Your task to perform on an android device: Add "usb-b" to the cart on walmart Image 0: 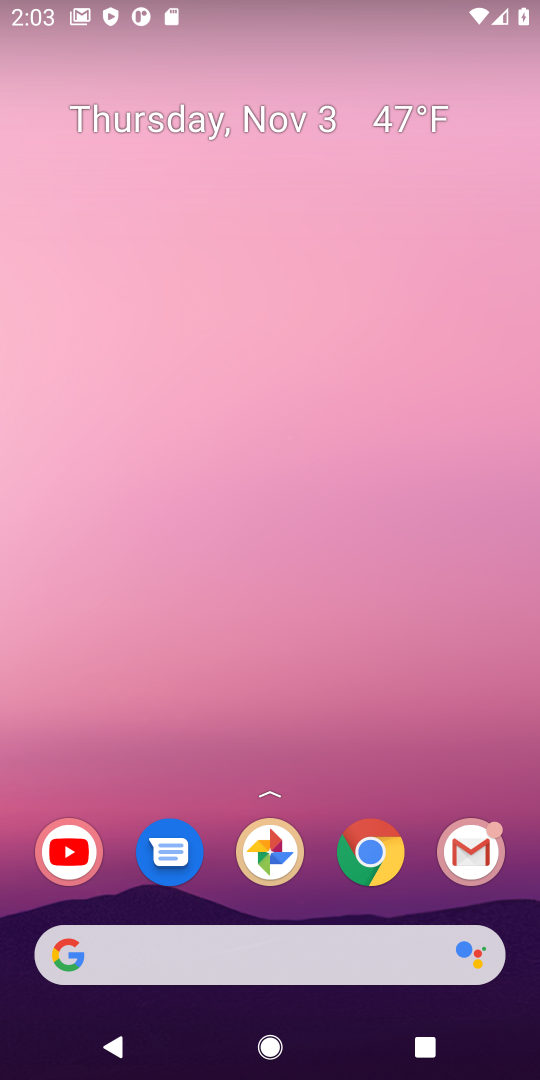
Step 0: click (368, 860)
Your task to perform on an android device: Add "usb-b" to the cart on walmart Image 1: 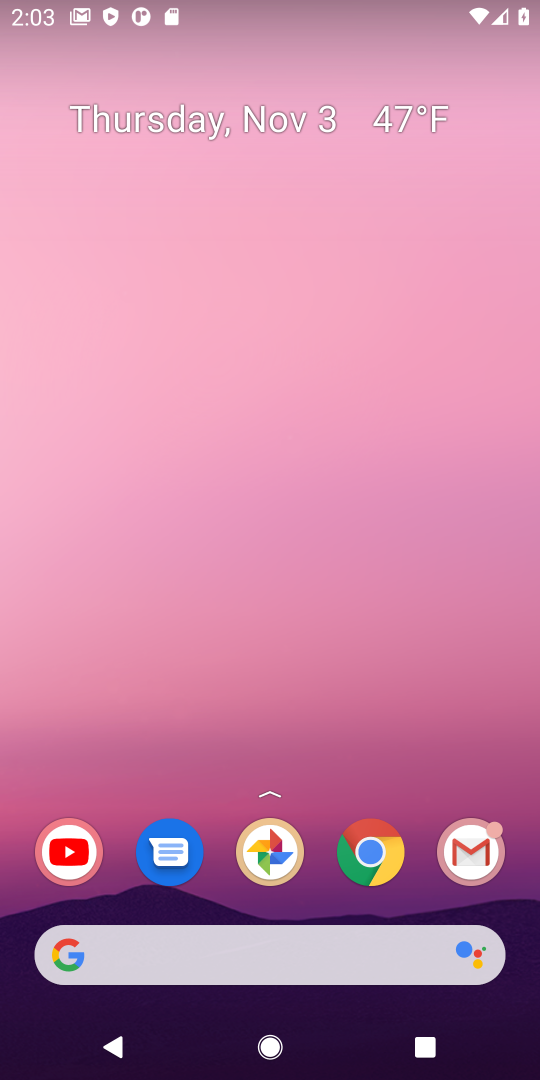
Step 1: click (368, 860)
Your task to perform on an android device: Add "usb-b" to the cart on walmart Image 2: 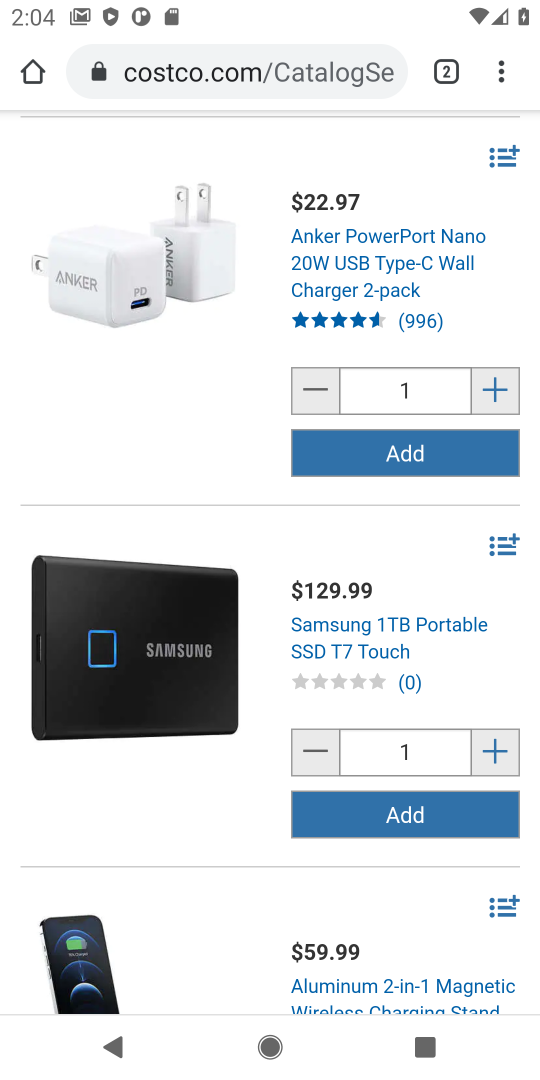
Step 2: click (217, 56)
Your task to perform on an android device: Add "usb-b" to the cart on walmart Image 3: 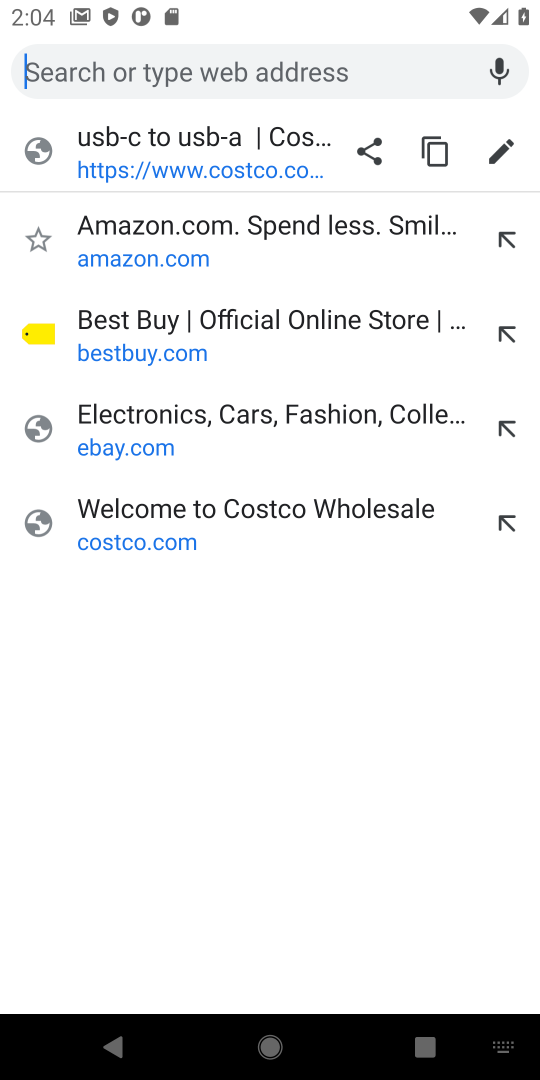
Step 3: type "walmart.com"
Your task to perform on an android device: Add "usb-b" to the cart on walmart Image 4: 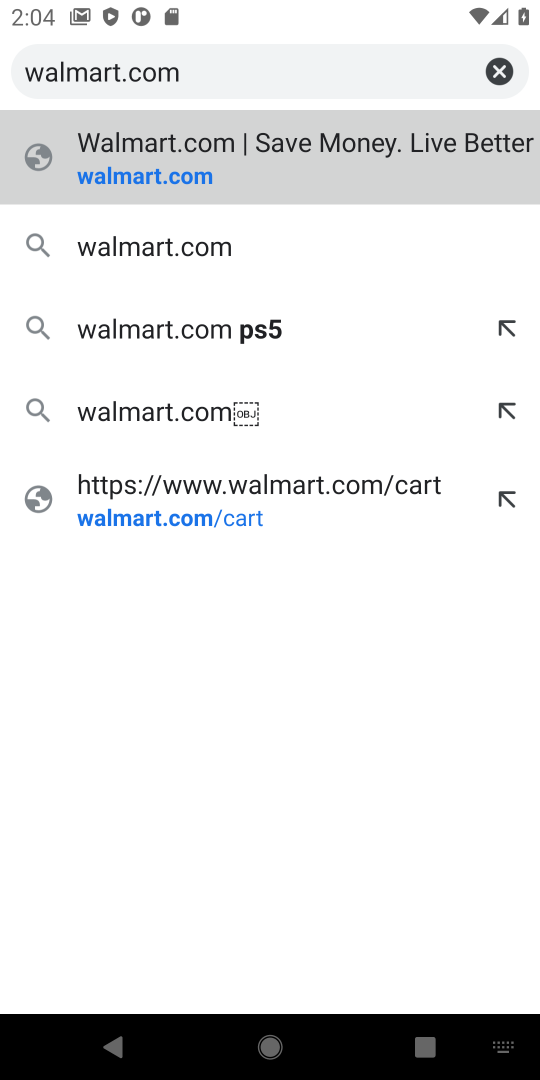
Step 4: click (130, 176)
Your task to perform on an android device: Add "usb-b" to the cart on walmart Image 5: 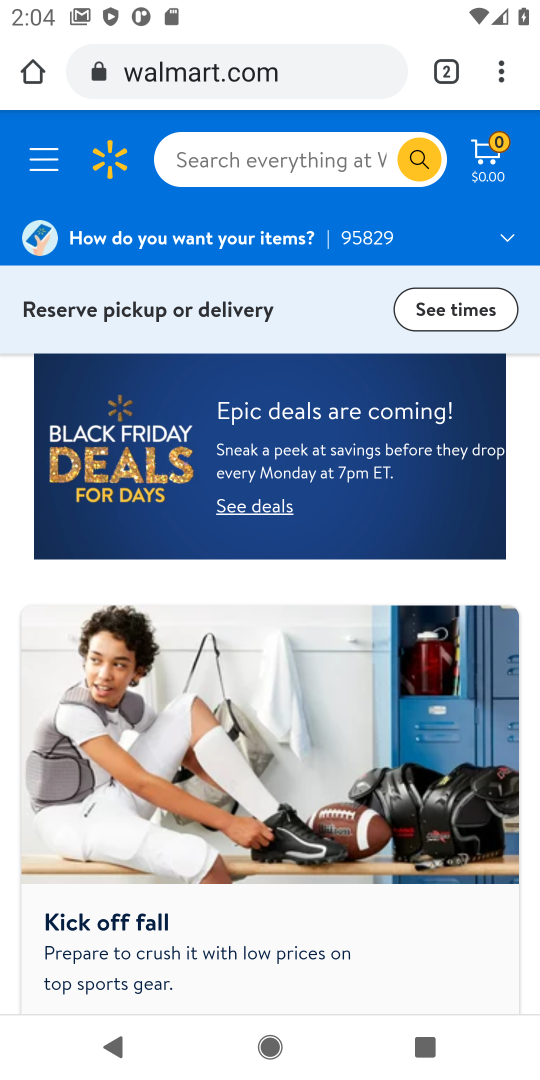
Step 5: click (256, 150)
Your task to perform on an android device: Add "usb-b" to the cart on walmart Image 6: 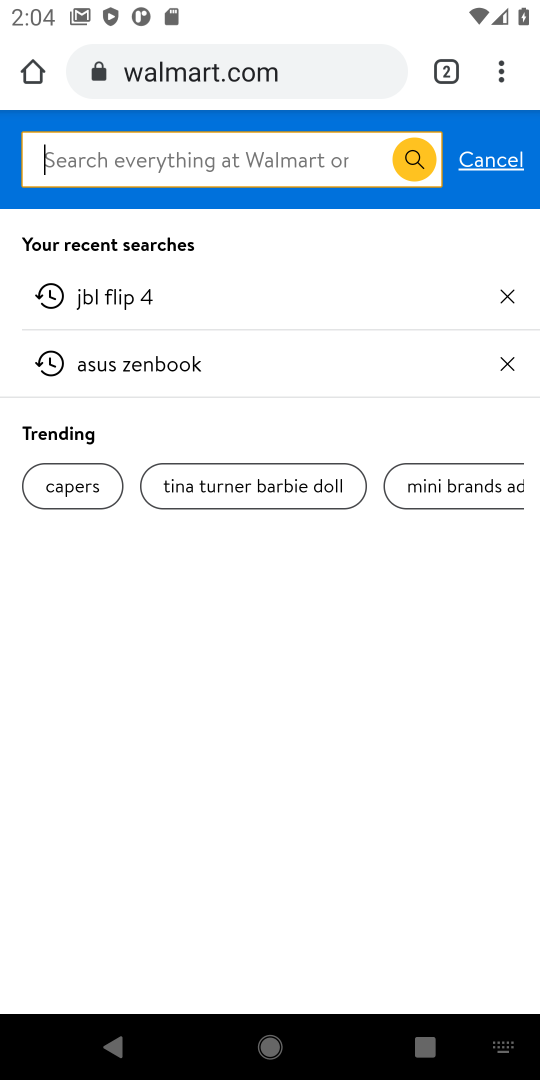
Step 6: type "usb-b"
Your task to perform on an android device: Add "usb-b" to the cart on walmart Image 7: 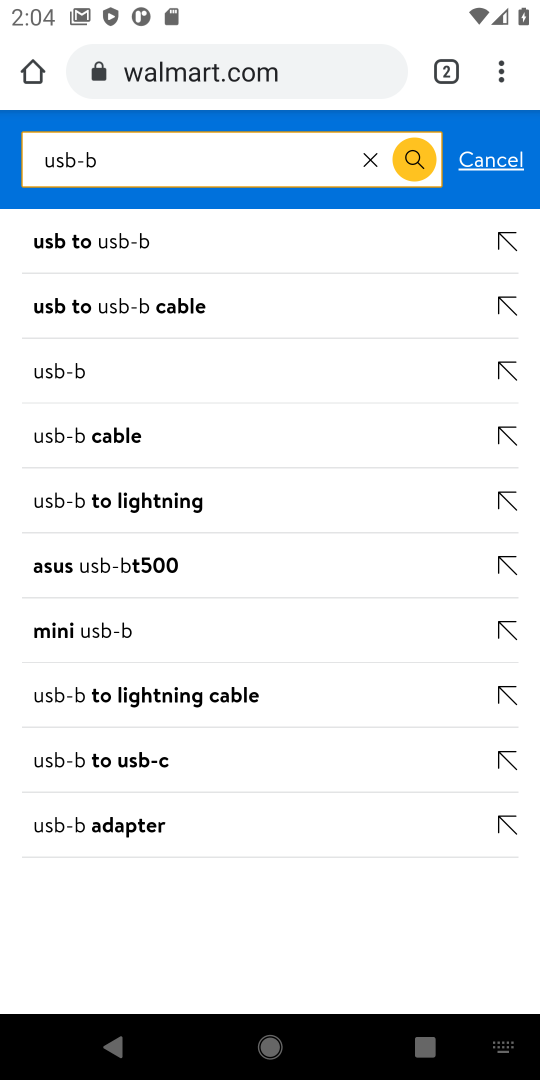
Step 7: click (68, 374)
Your task to perform on an android device: Add "usb-b" to the cart on walmart Image 8: 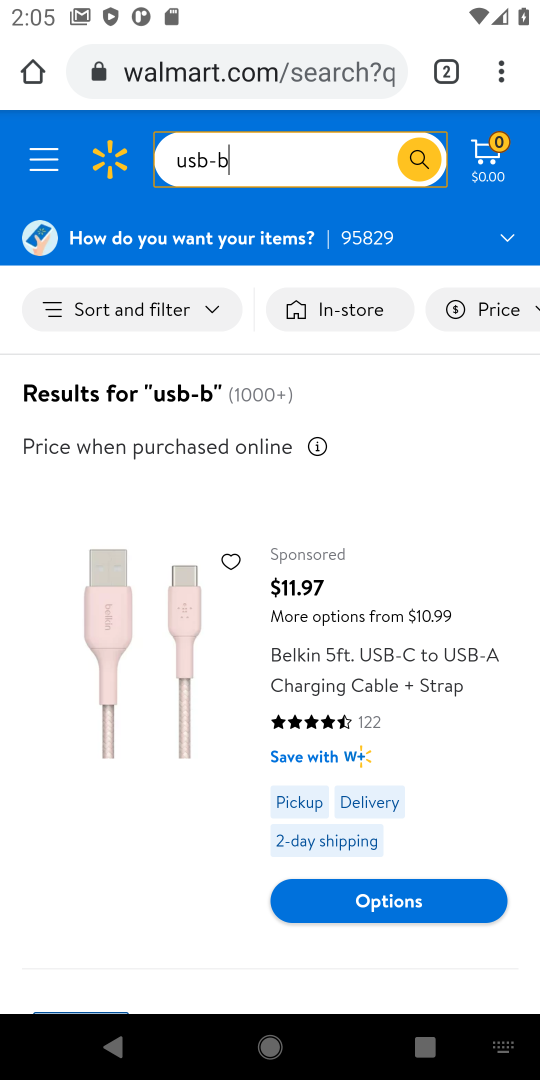
Step 8: drag from (176, 671) to (207, 206)
Your task to perform on an android device: Add "usb-b" to the cart on walmart Image 9: 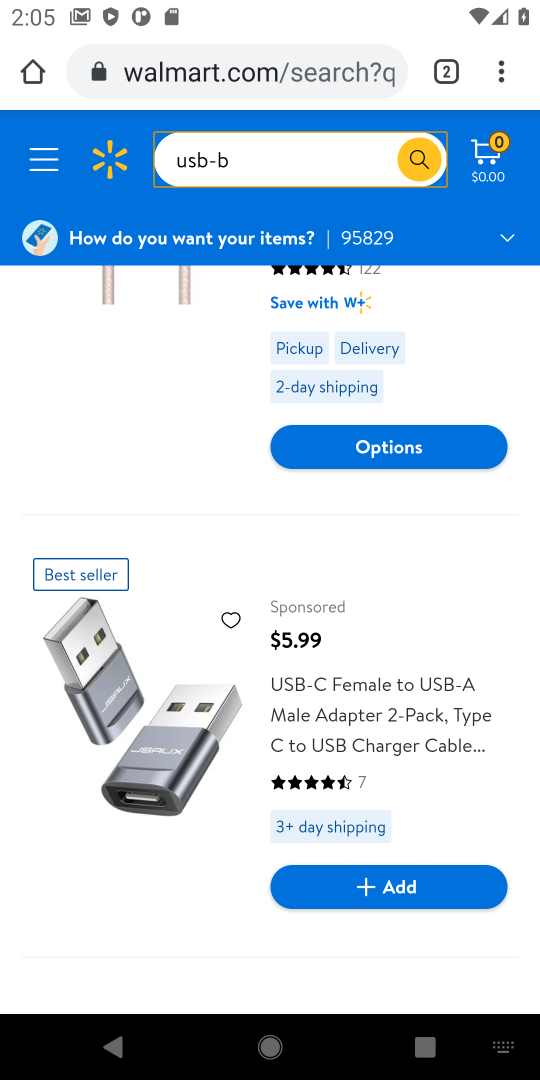
Step 9: drag from (158, 697) to (141, 307)
Your task to perform on an android device: Add "usb-b" to the cart on walmart Image 10: 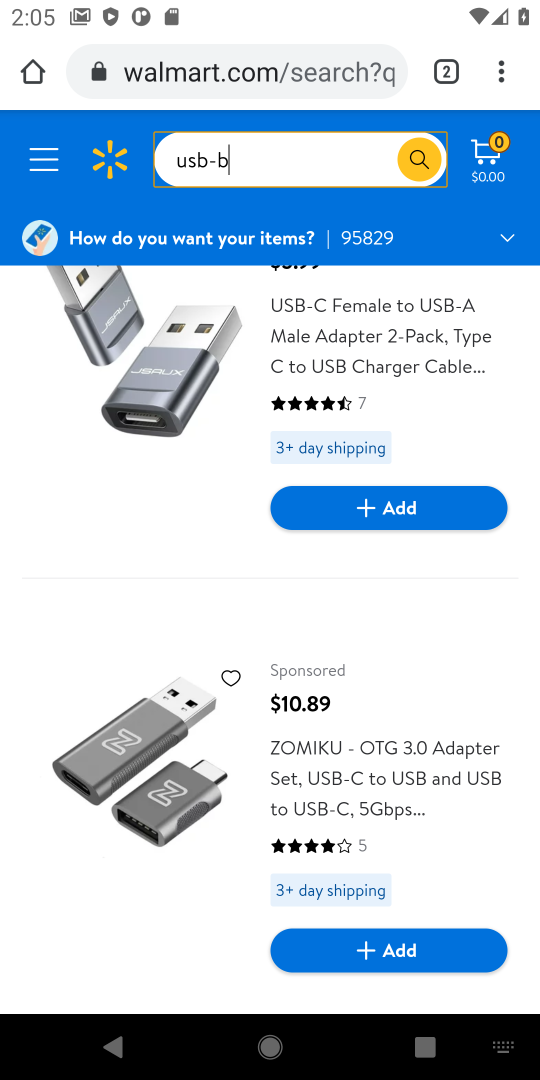
Step 10: drag from (147, 854) to (170, 321)
Your task to perform on an android device: Add "usb-b" to the cart on walmart Image 11: 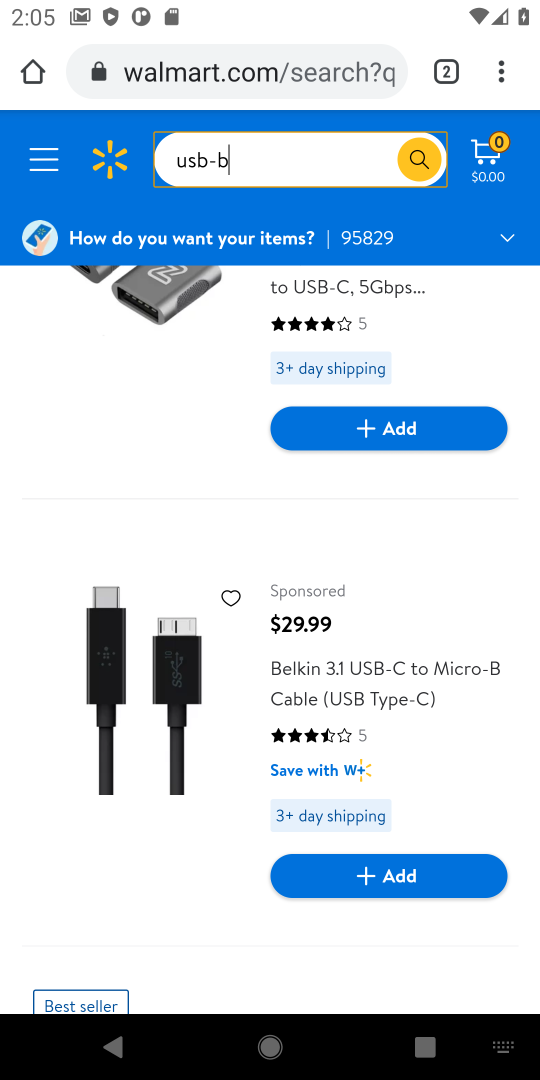
Step 11: drag from (171, 766) to (188, 430)
Your task to perform on an android device: Add "usb-b" to the cart on walmart Image 12: 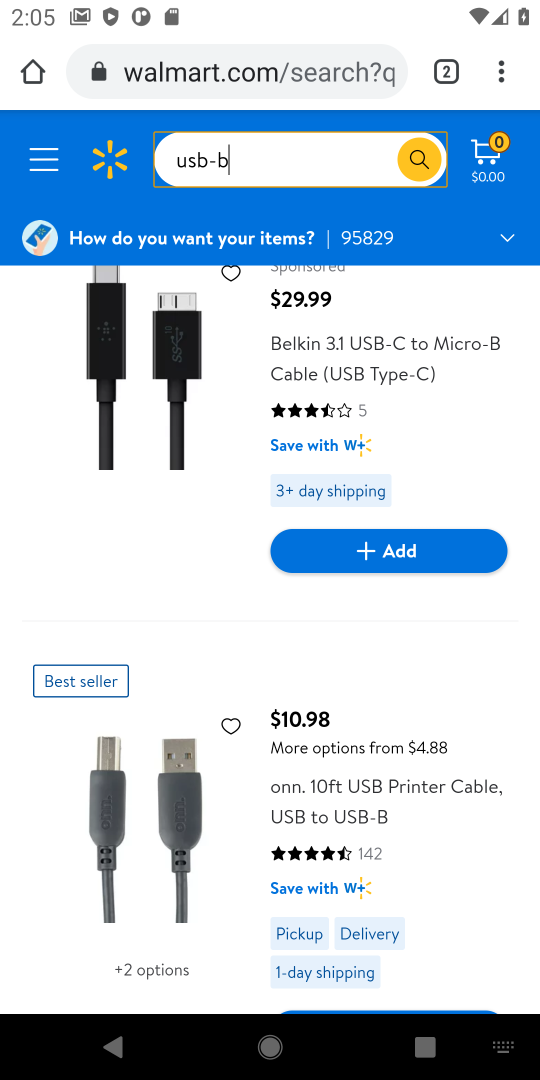
Step 12: click (145, 862)
Your task to perform on an android device: Add "usb-b" to the cart on walmart Image 13: 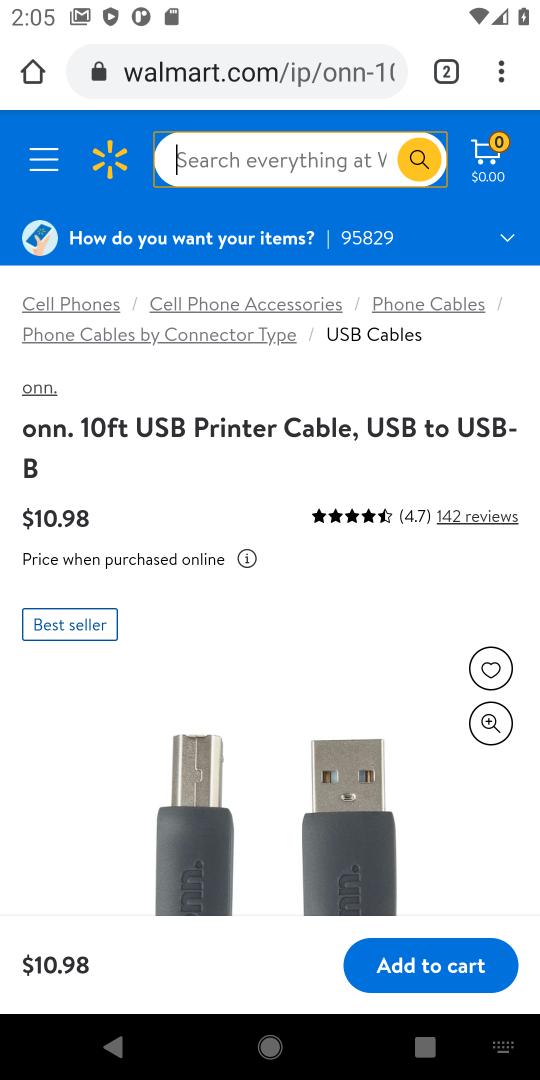
Step 13: click (408, 969)
Your task to perform on an android device: Add "usb-b" to the cart on walmart Image 14: 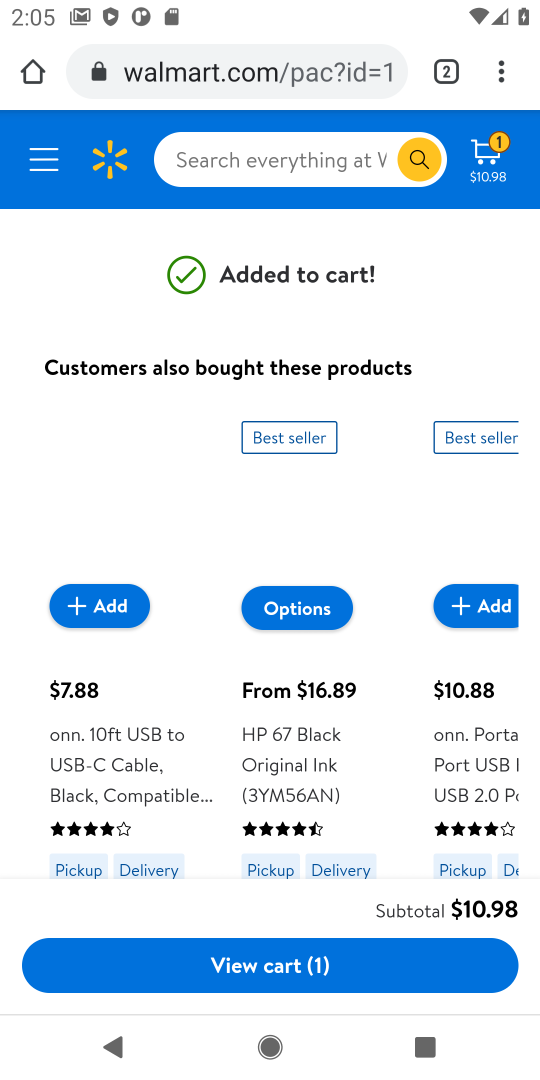
Step 14: task complete